Your task to perform on an android device: install app "DoorDash - Food Delivery" Image 0: 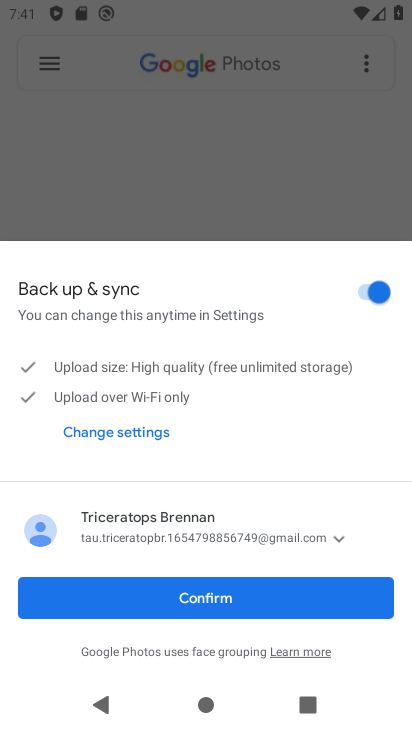
Step 0: press home button
Your task to perform on an android device: install app "DoorDash - Food Delivery" Image 1: 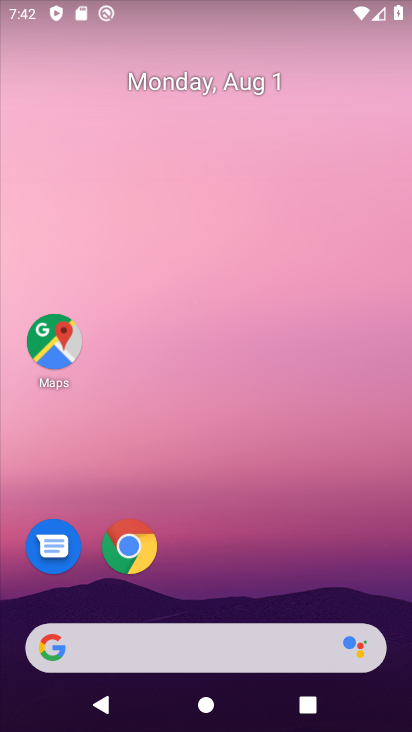
Step 1: drag from (241, 526) to (301, 35)
Your task to perform on an android device: install app "DoorDash - Food Delivery" Image 2: 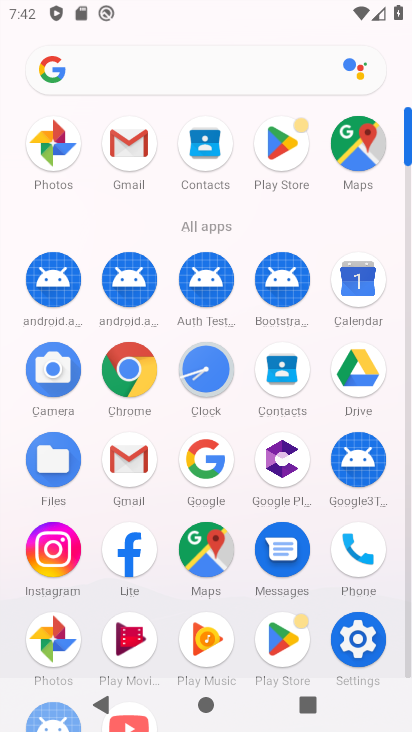
Step 2: click (291, 148)
Your task to perform on an android device: install app "DoorDash - Food Delivery" Image 3: 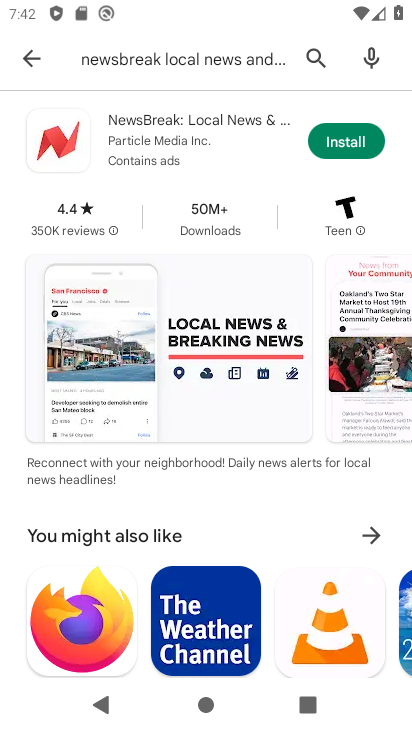
Step 3: click (282, 54)
Your task to perform on an android device: install app "DoorDash - Food Delivery" Image 4: 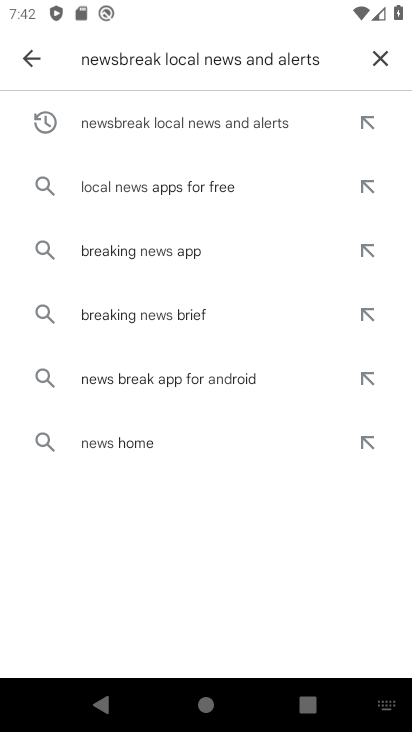
Step 4: click (379, 55)
Your task to perform on an android device: install app "DoorDash - Food Delivery" Image 5: 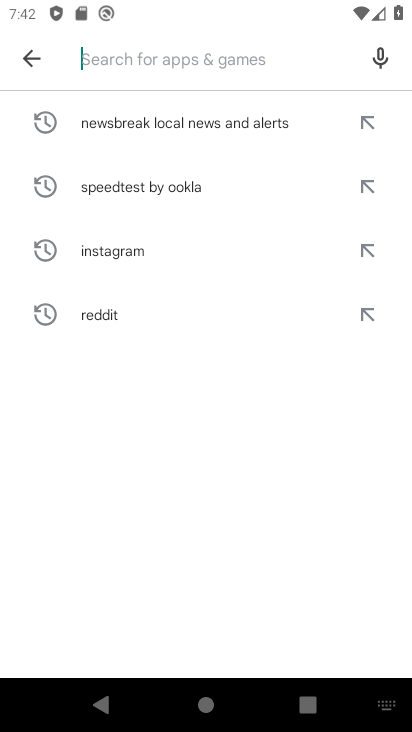
Step 5: type "doordash - Food delivery"
Your task to perform on an android device: install app "DoorDash - Food Delivery" Image 6: 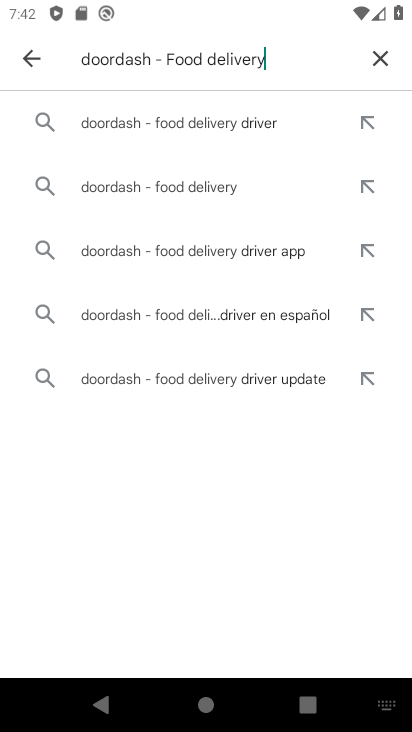
Step 6: click (237, 120)
Your task to perform on an android device: install app "DoorDash - Food Delivery" Image 7: 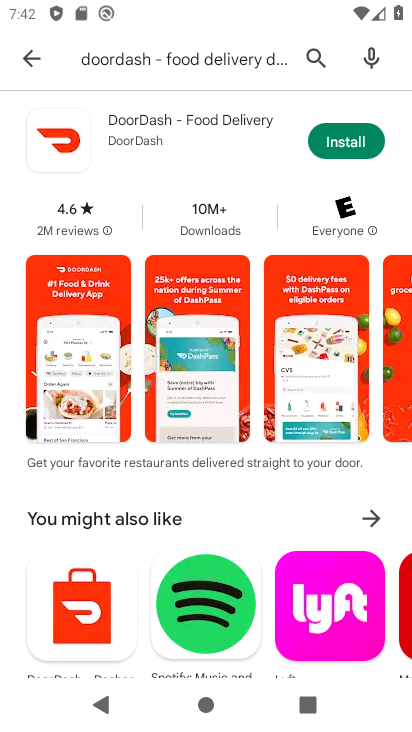
Step 7: click (339, 142)
Your task to perform on an android device: install app "DoorDash - Food Delivery" Image 8: 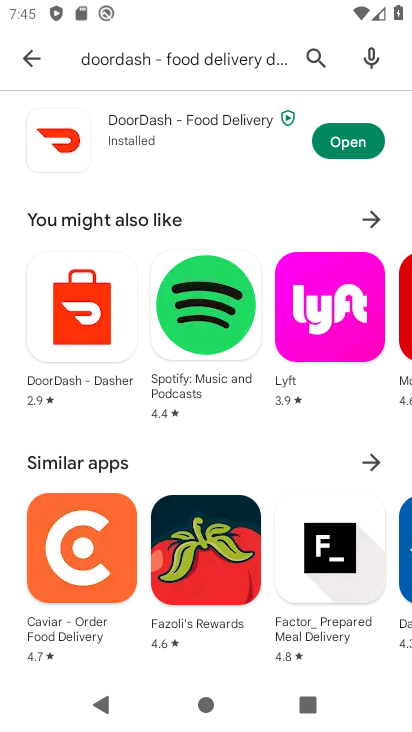
Step 8: task complete